Your task to perform on an android device: open device folders in google photos Image 0: 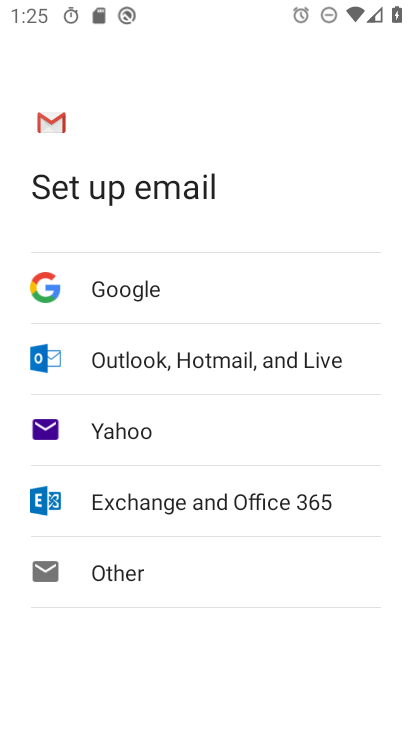
Step 0: press home button
Your task to perform on an android device: open device folders in google photos Image 1: 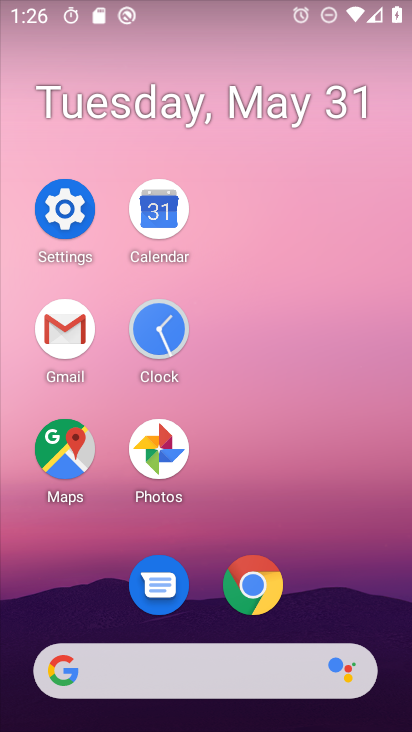
Step 1: click (156, 455)
Your task to perform on an android device: open device folders in google photos Image 2: 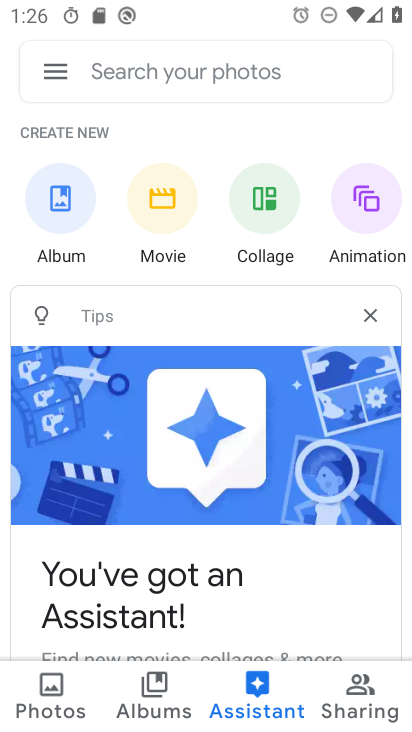
Step 2: click (59, 67)
Your task to perform on an android device: open device folders in google photos Image 3: 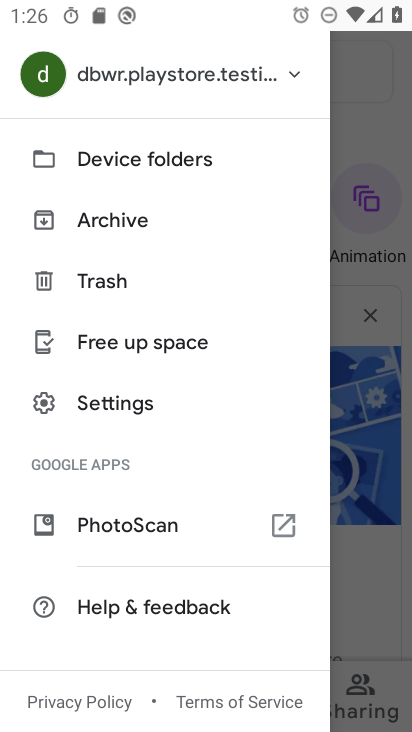
Step 3: click (188, 163)
Your task to perform on an android device: open device folders in google photos Image 4: 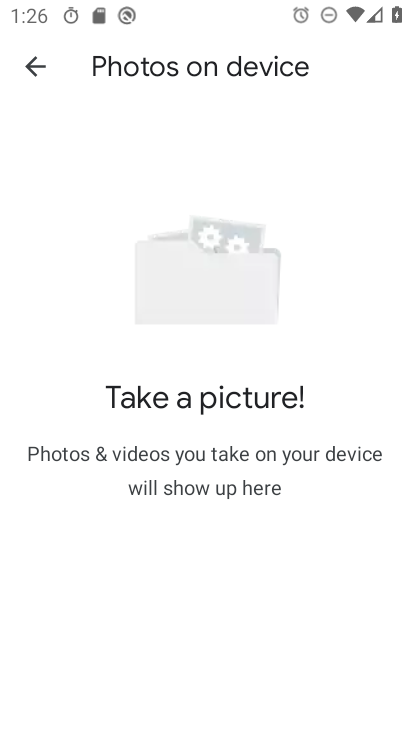
Step 4: task complete